Your task to perform on an android device: turn on priority inbox in the gmail app Image 0: 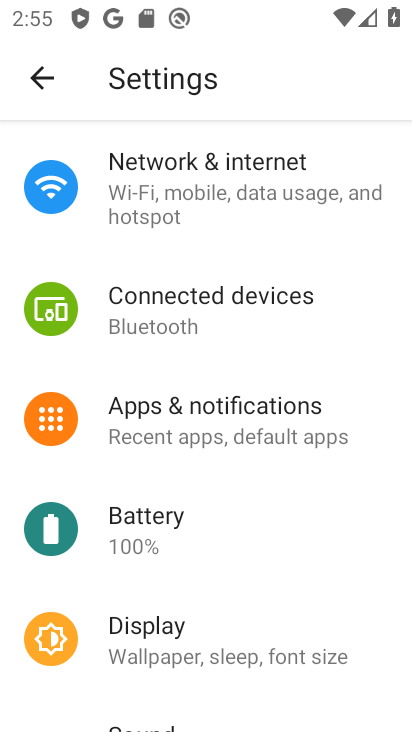
Step 0: press home button
Your task to perform on an android device: turn on priority inbox in the gmail app Image 1: 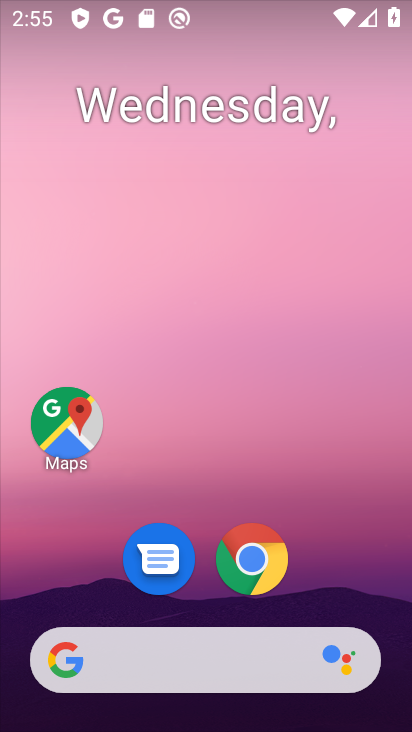
Step 1: drag from (248, 608) to (323, 36)
Your task to perform on an android device: turn on priority inbox in the gmail app Image 2: 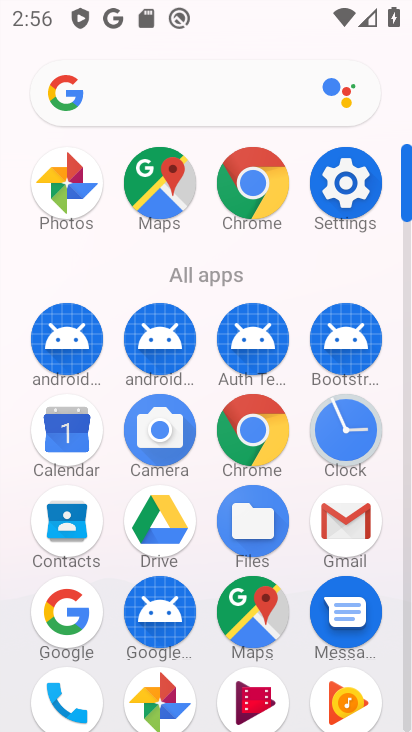
Step 2: click (336, 517)
Your task to perform on an android device: turn on priority inbox in the gmail app Image 3: 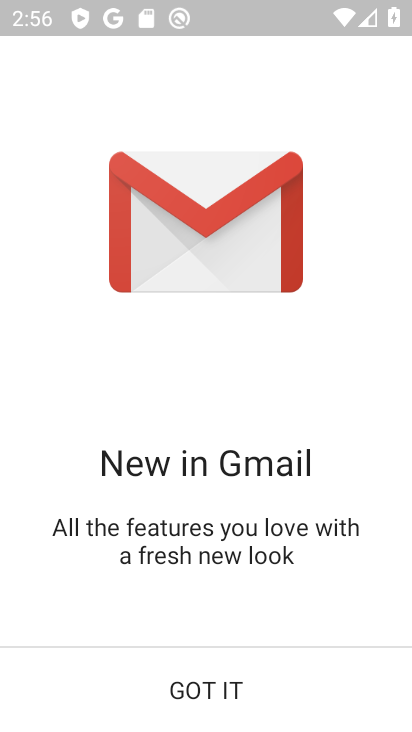
Step 3: click (238, 689)
Your task to perform on an android device: turn on priority inbox in the gmail app Image 4: 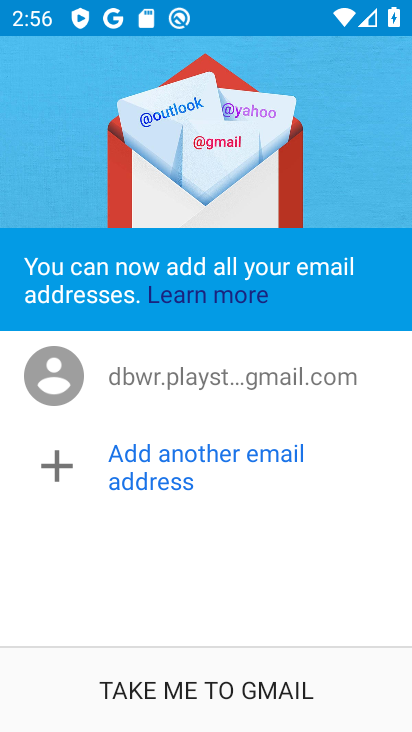
Step 4: click (239, 697)
Your task to perform on an android device: turn on priority inbox in the gmail app Image 5: 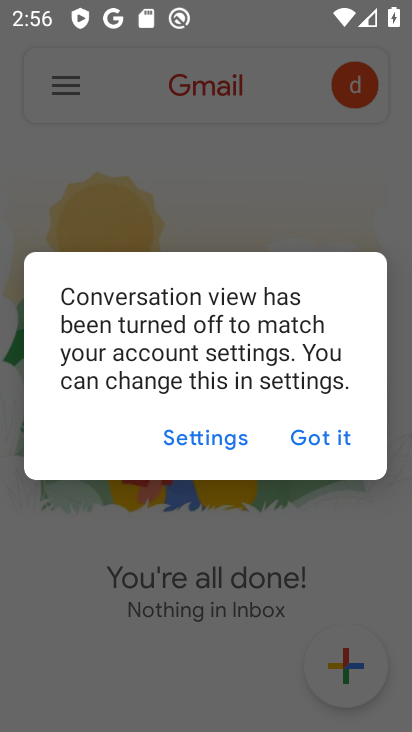
Step 5: click (190, 436)
Your task to perform on an android device: turn on priority inbox in the gmail app Image 6: 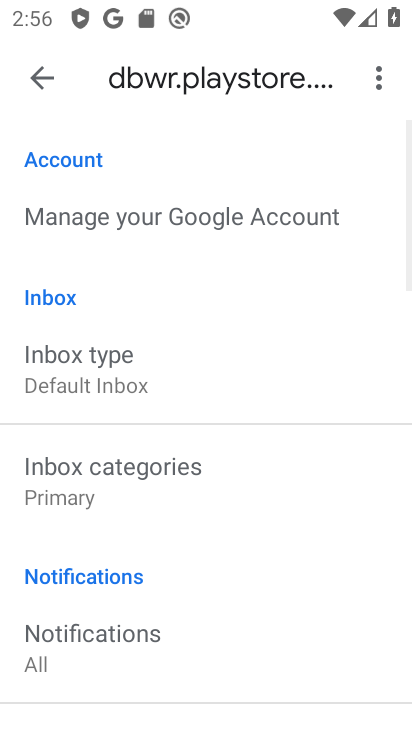
Step 6: click (142, 382)
Your task to perform on an android device: turn on priority inbox in the gmail app Image 7: 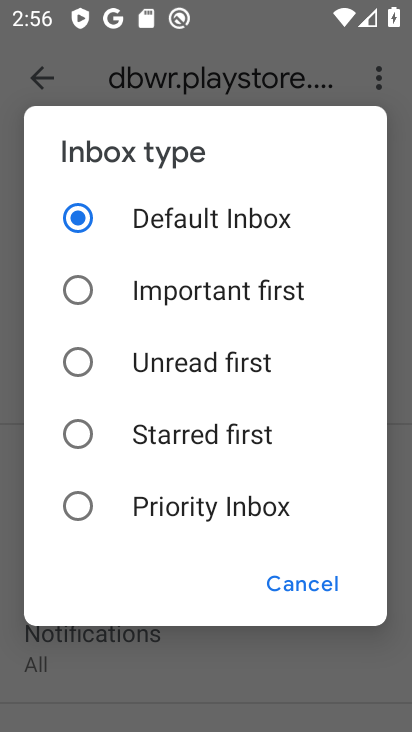
Step 7: click (175, 507)
Your task to perform on an android device: turn on priority inbox in the gmail app Image 8: 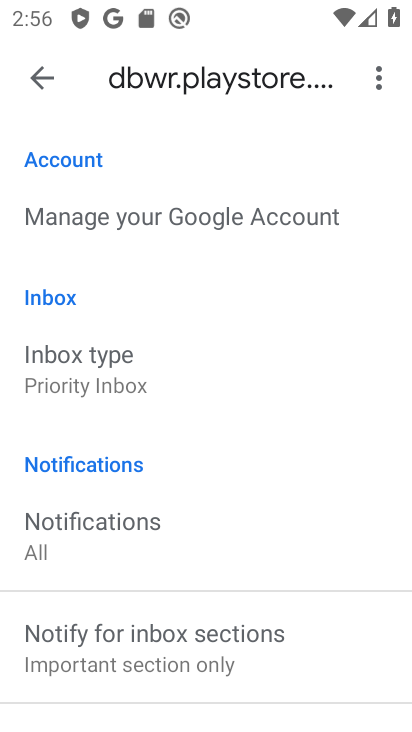
Step 8: task complete